Your task to perform on an android device: change keyboard looks Image 0: 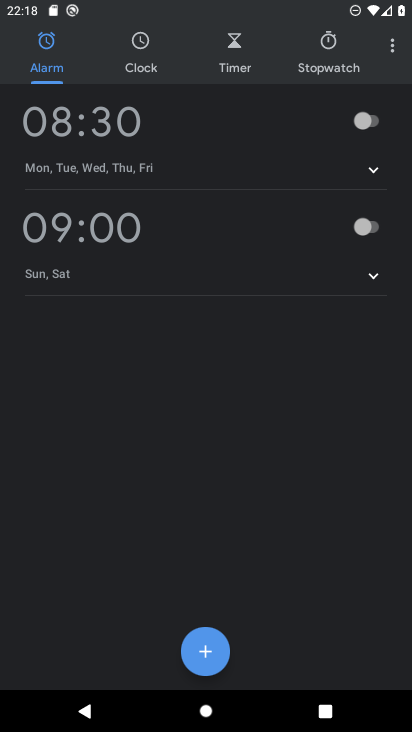
Step 0: press home button
Your task to perform on an android device: change keyboard looks Image 1: 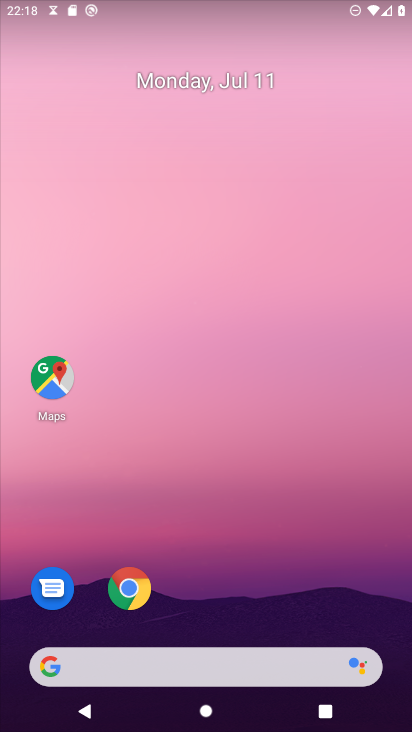
Step 1: drag from (262, 603) to (210, 10)
Your task to perform on an android device: change keyboard looks Image 2: 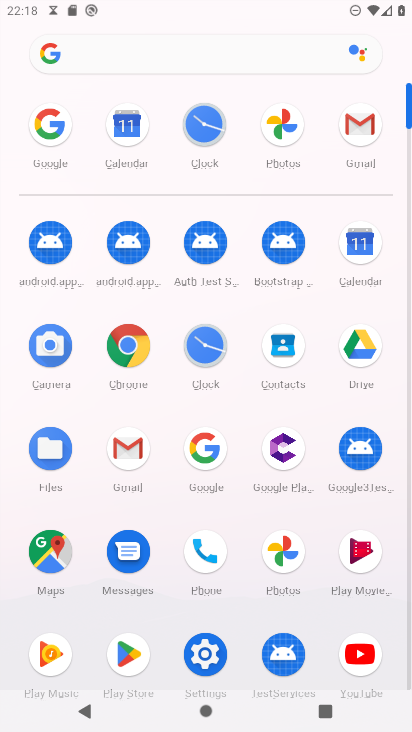
Step 2: click (192, 652)
Your task to perform on an android device: change keyboard looks Image 3: 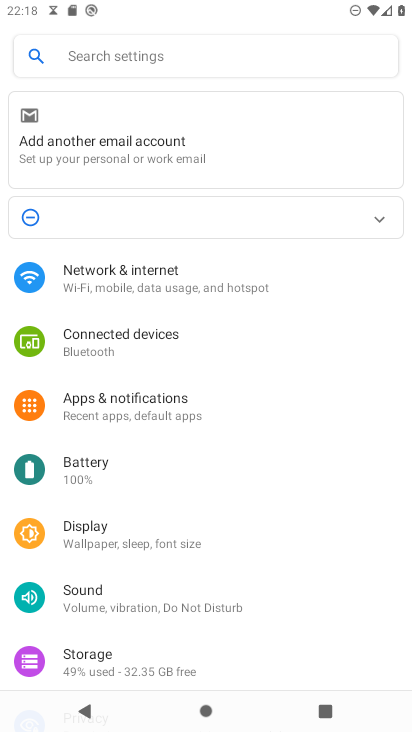
Step 3: drag from (226, 652) to (211, 93)
Your task to perform on an android device: change keyboard looks Image 4: 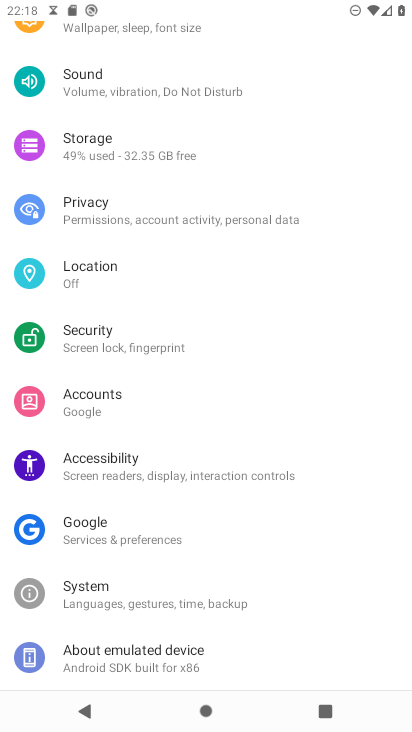
Step 4: click (123, 603)
Your task to perform on an android device: change keyboard looks Image 5: 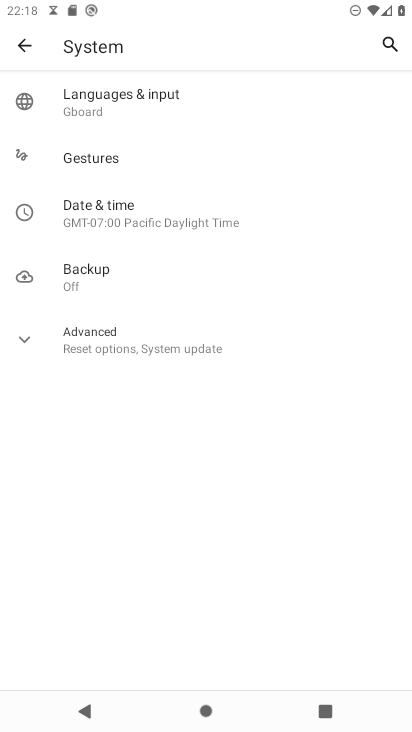
Step 5: click (96, 156)
Your task to perform on an android device: change keyboard looks Image 6: 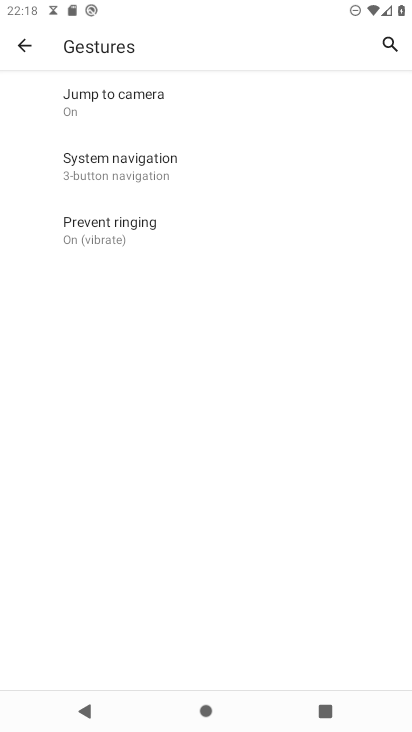
Step 6: press back button
Your task to perform on an android device: change keyboard looks Image 7: 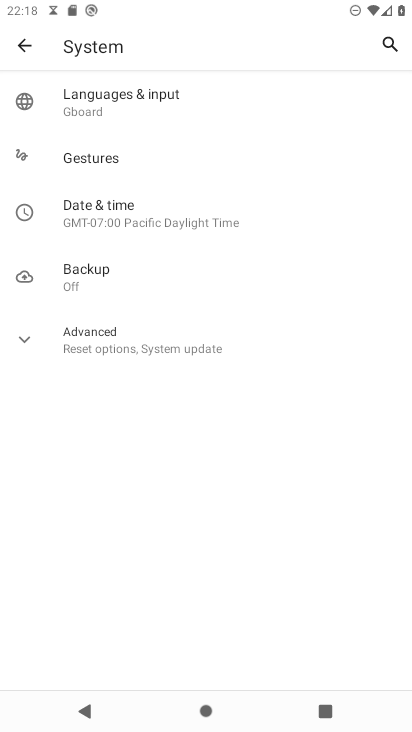
Step 7: click (112, 94)
Your task to perform on an android device: change keyboard looks Image 8: 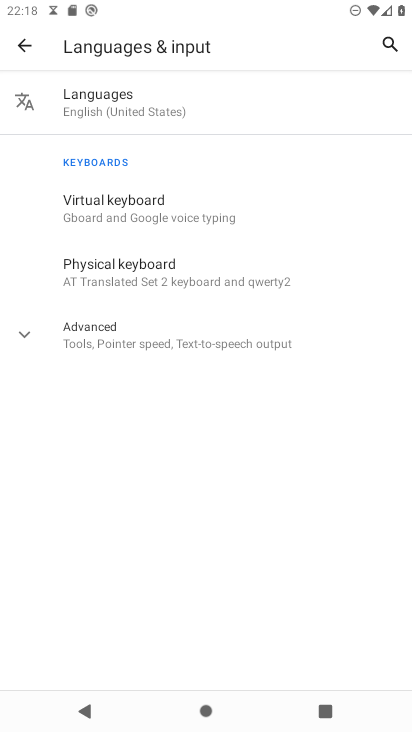
Step 8: click (112, 203)
Your task to perform on an android device: change keyboard looks Image 9: 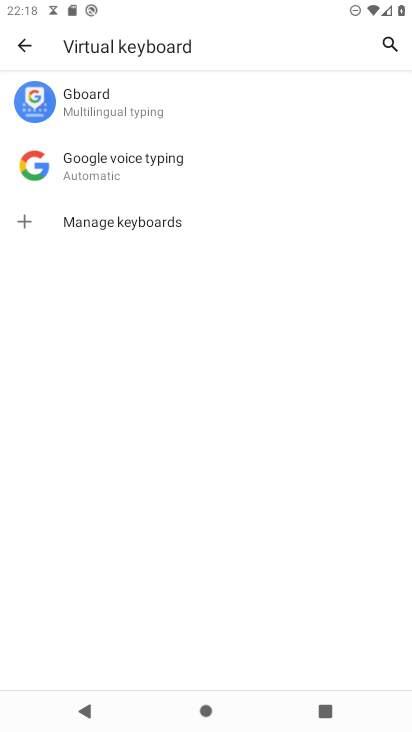
Step 9: click (100, 106)
Your task to perform on an android device: change keyboard looks Image 10: 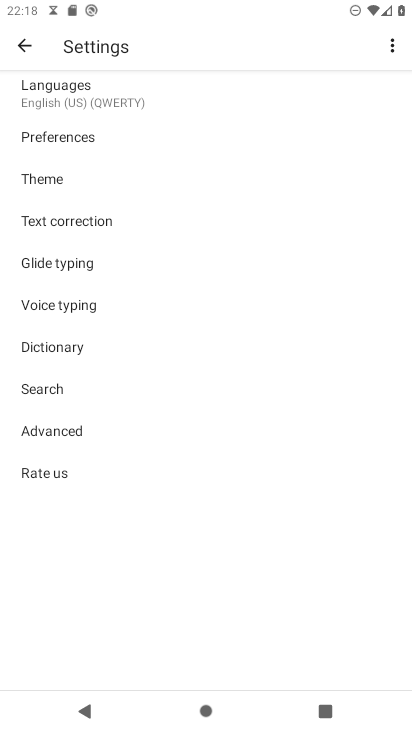
Step 10: click (70, 183)
Your task to perform on an android device: change keyboard looks Image 11: 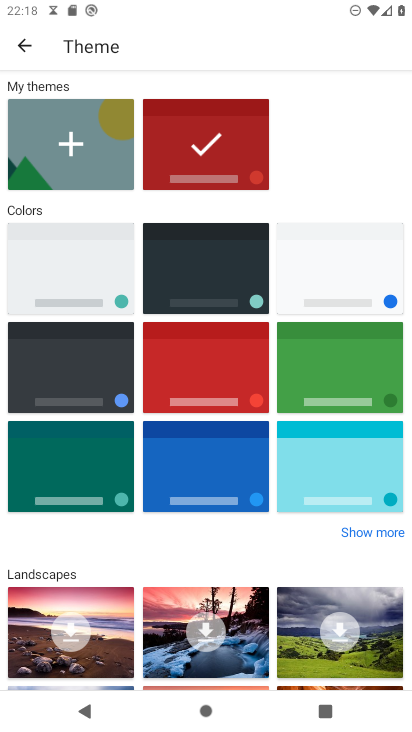
Step 11: click (202, 353)
Your task to perform on an android device: change keyboard looks Image 12: 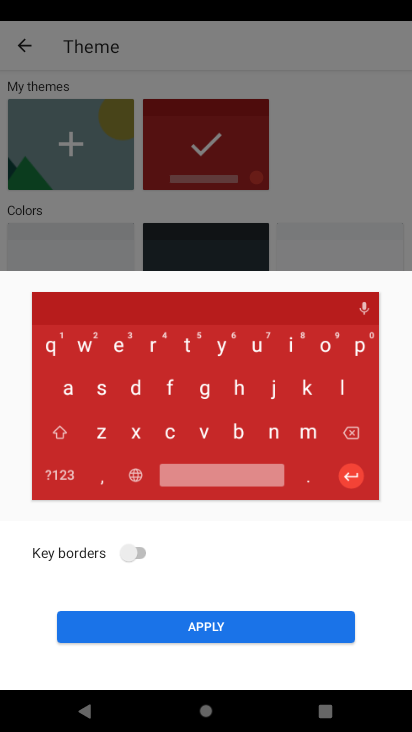
Step 12: click (233, 637)
Your task to perform on an android device: change keyboard looks Image 13: 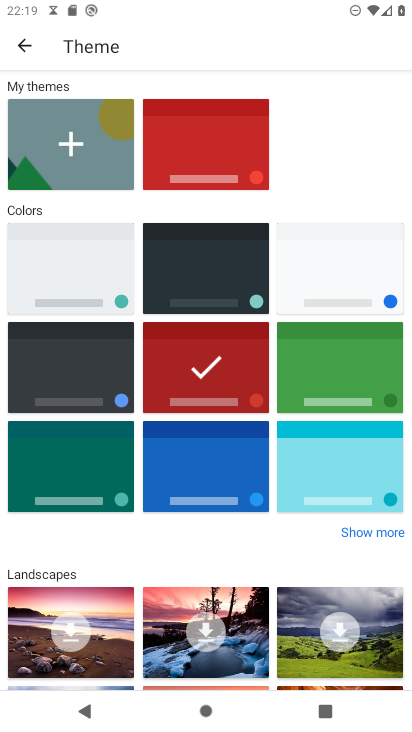
Step 13: task complete